Your task to perform on an android device: Clear the cart on bestbuy. Add panasonic triple a to the cart on bestbuy Image 0: 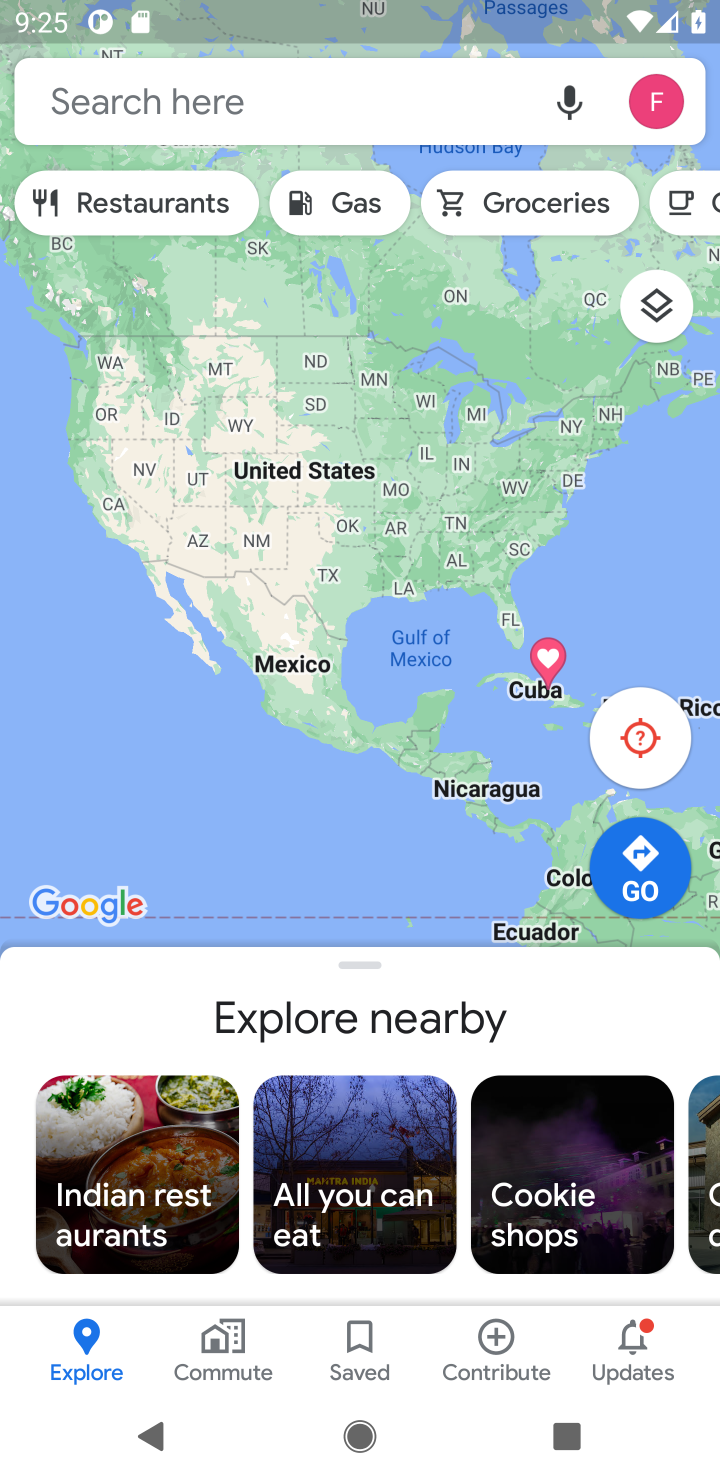
Step 0: press home button
Your task to perform on an android device: Clear the cart on bestbuy. Add panasonic triple a to the cart on bestbuy Image 1: 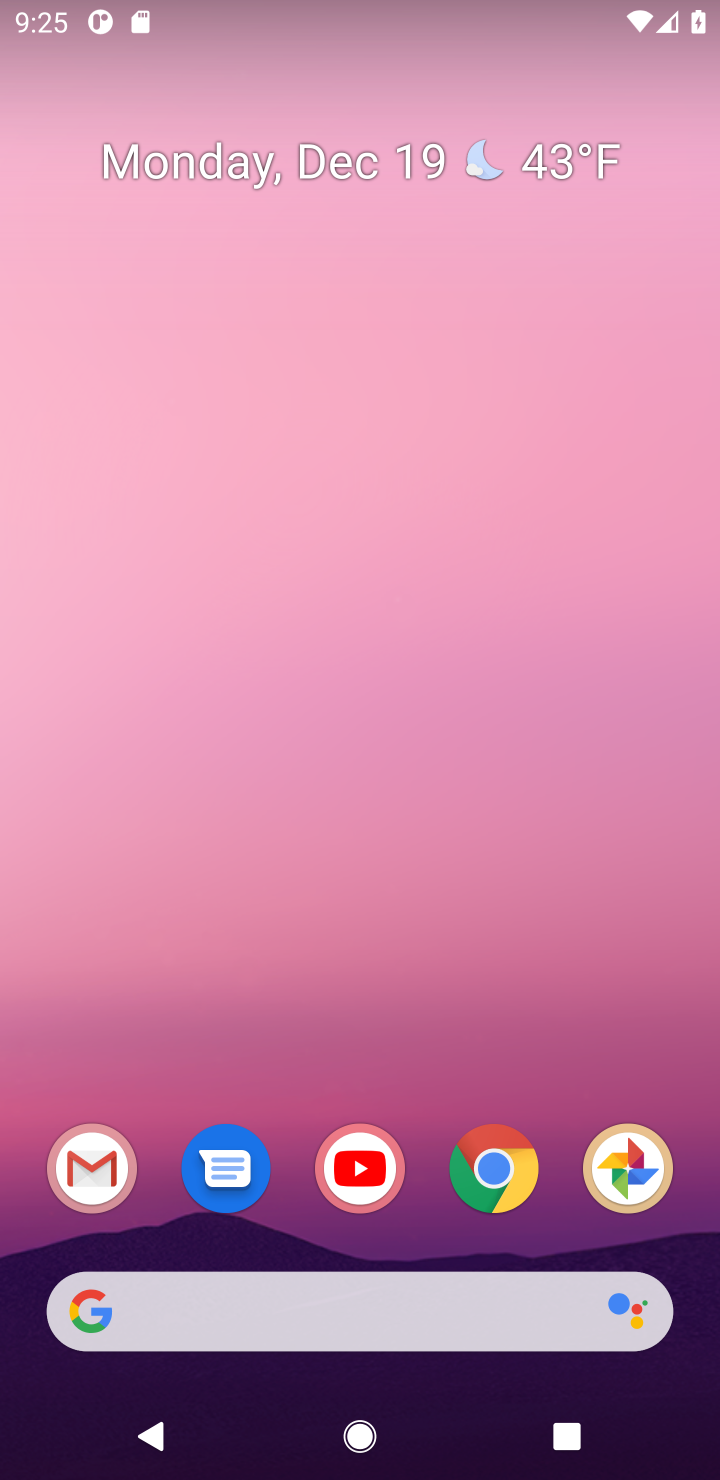
Step 1: click (497, 1167)
Your task to perform on an android device: Clear the cart on bestbuy. Add panasonic triple a to the cart on bestbuy Image 2: 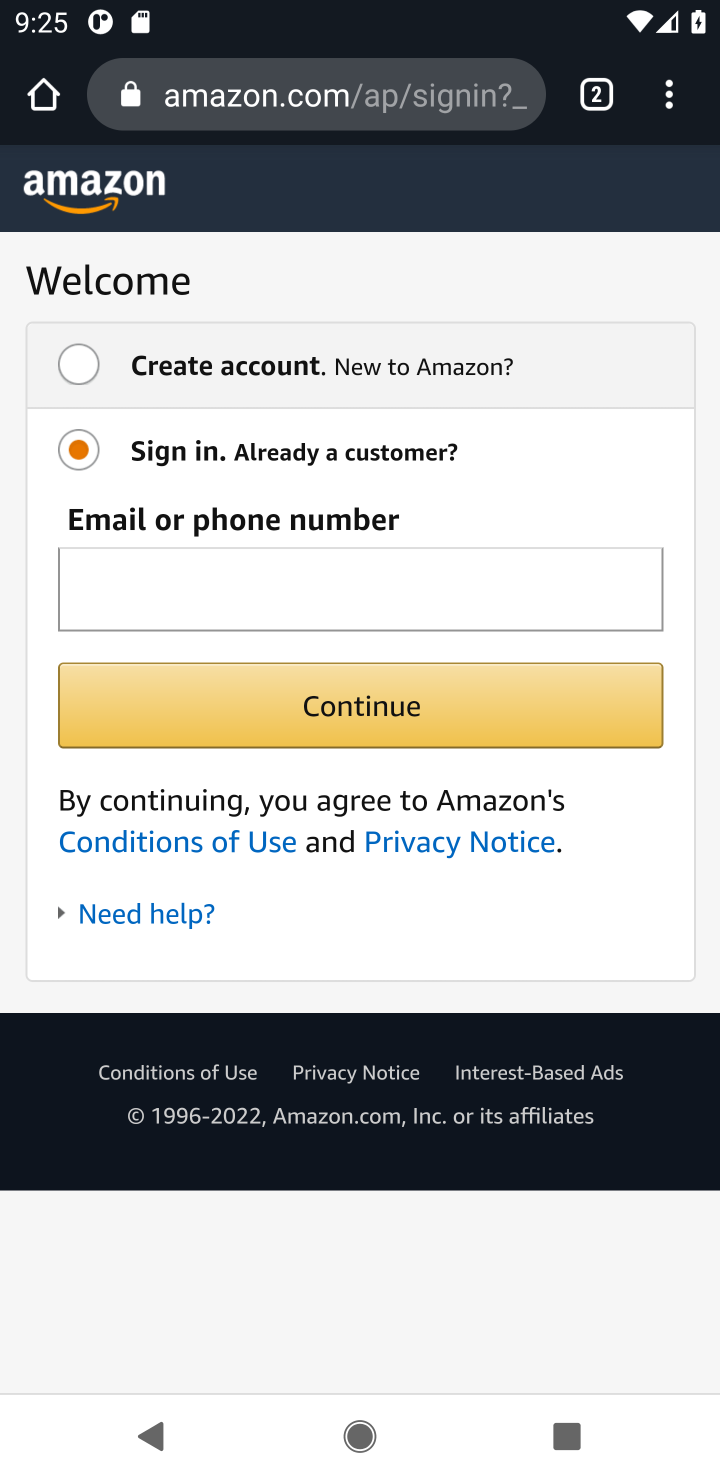
Step 2: click (283, 107)
Your task to perform on an android device: Clear the cart on bestbuy. Add panasonic triple a to the cart on bestbuy Image 3: 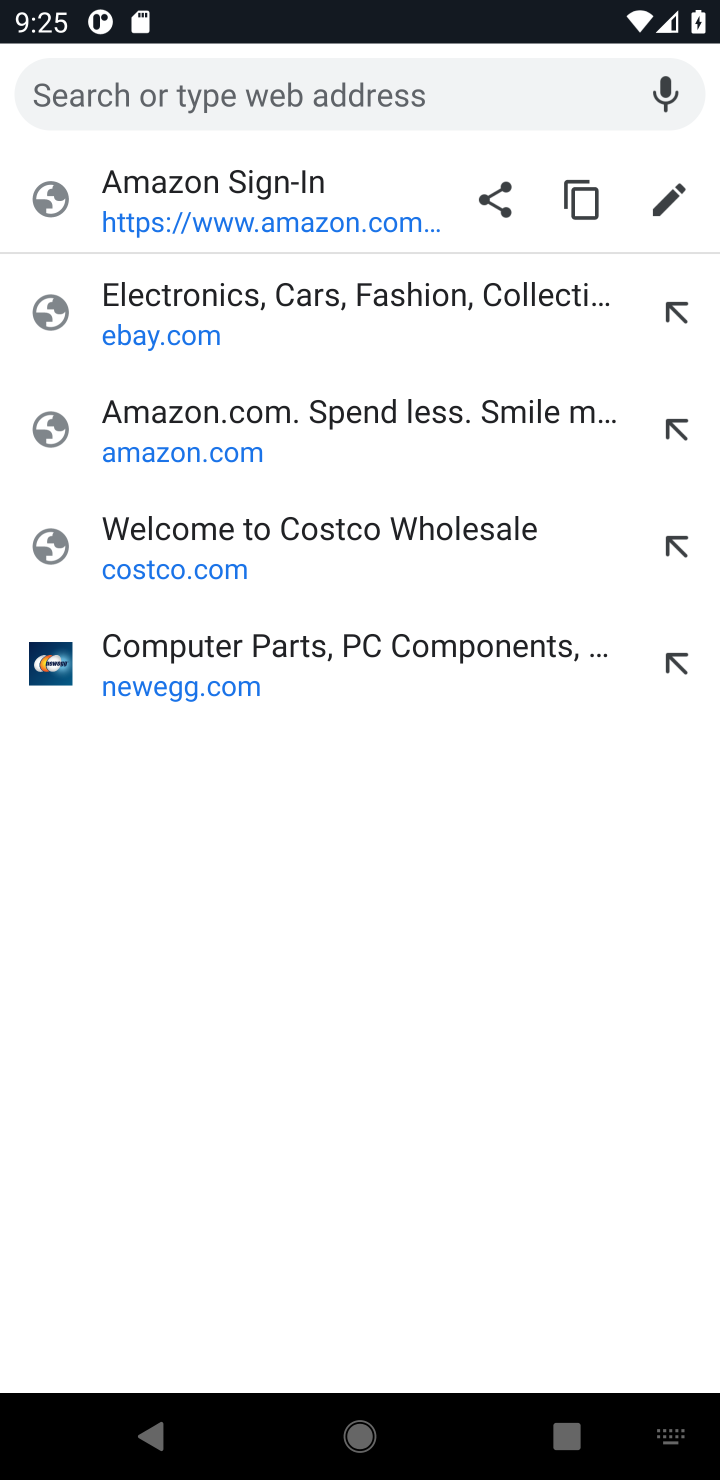
Step 3: type "bestbuy.com"
Your task to perform on an android device: Clear the cart on bestbuy. Add panasonic triple a to the cart on bestbuy Image 4: 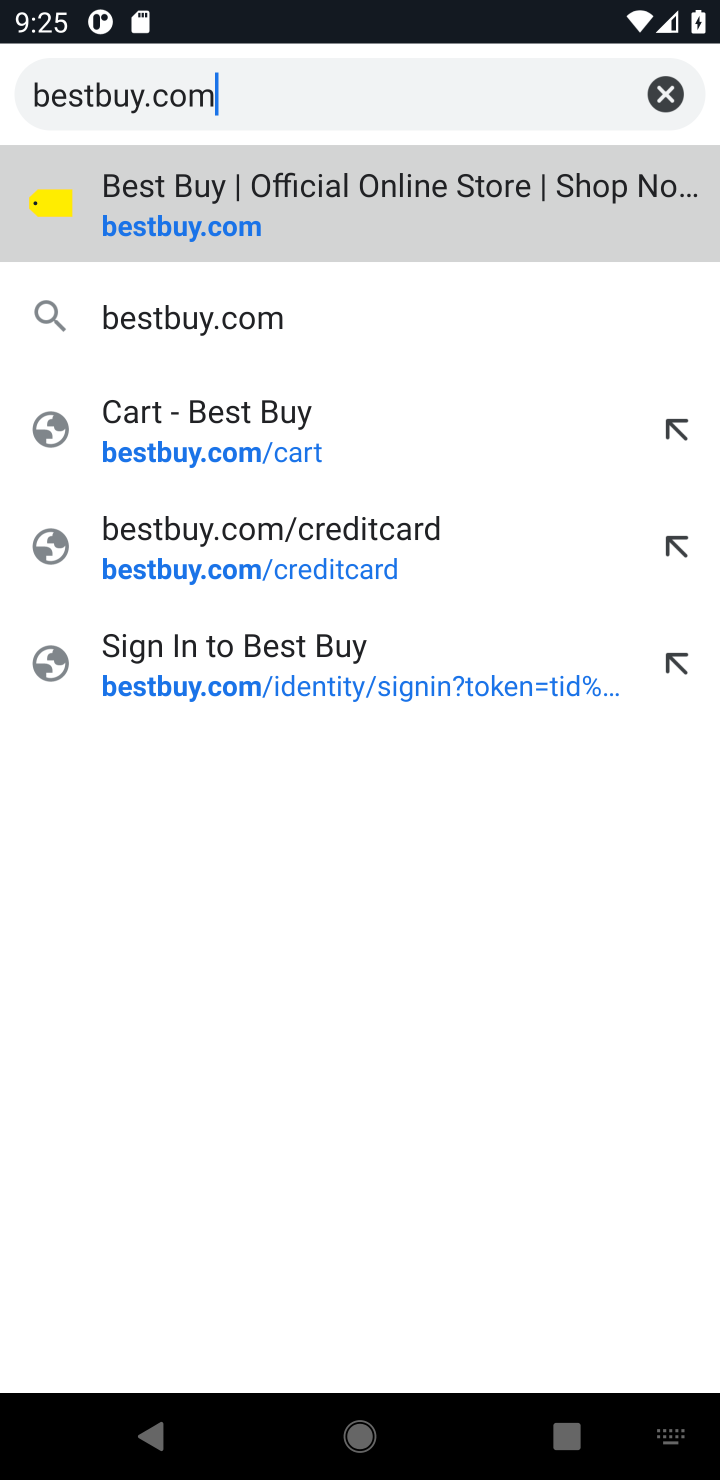
Step 4: click (166, 218)
Your task to perform on an android device: Clear the cart on bestbuy. Add panasonic triple a to the cart on bestbuy Image 5: 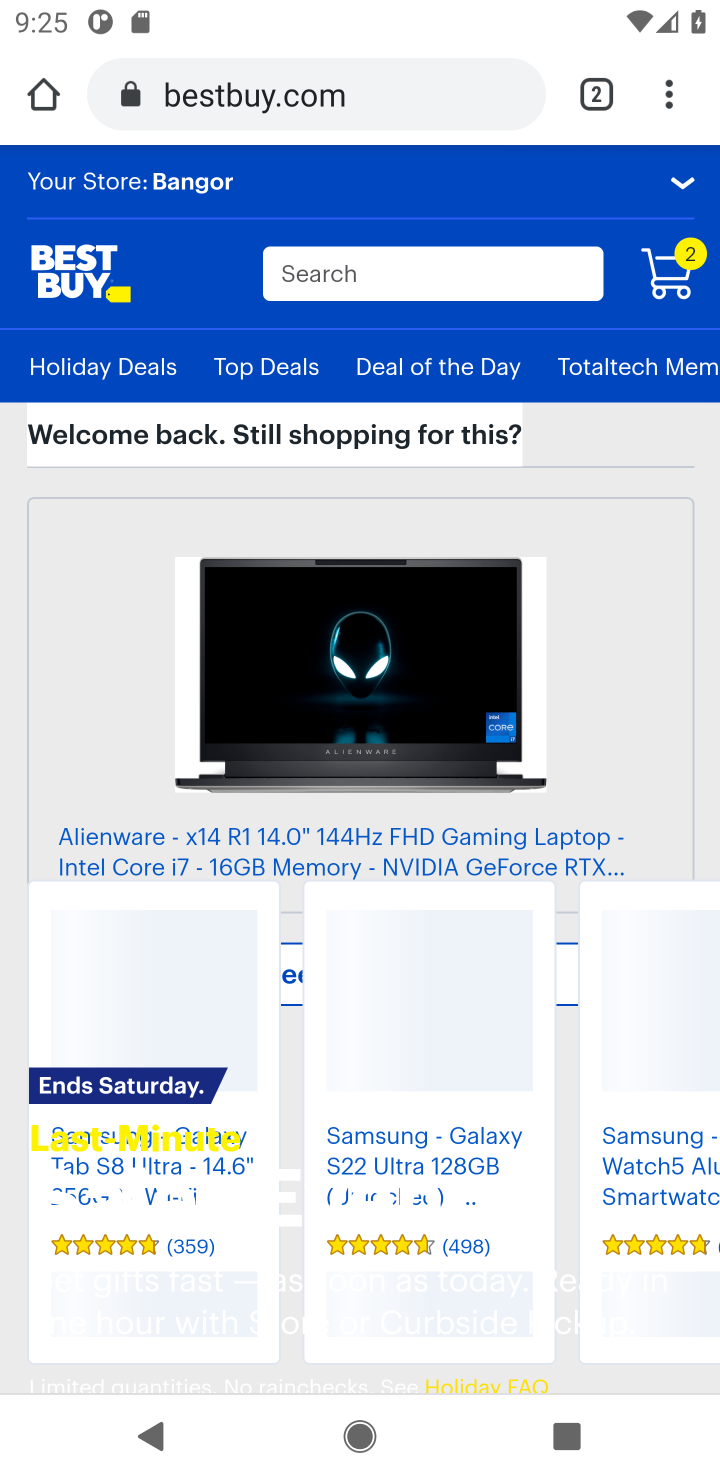
Step 5: click (660, 293)
Your task to perform on an android device: Clear the cart on bestbuy. Add panasonic triple a to the cart on bestbuy Image 6: 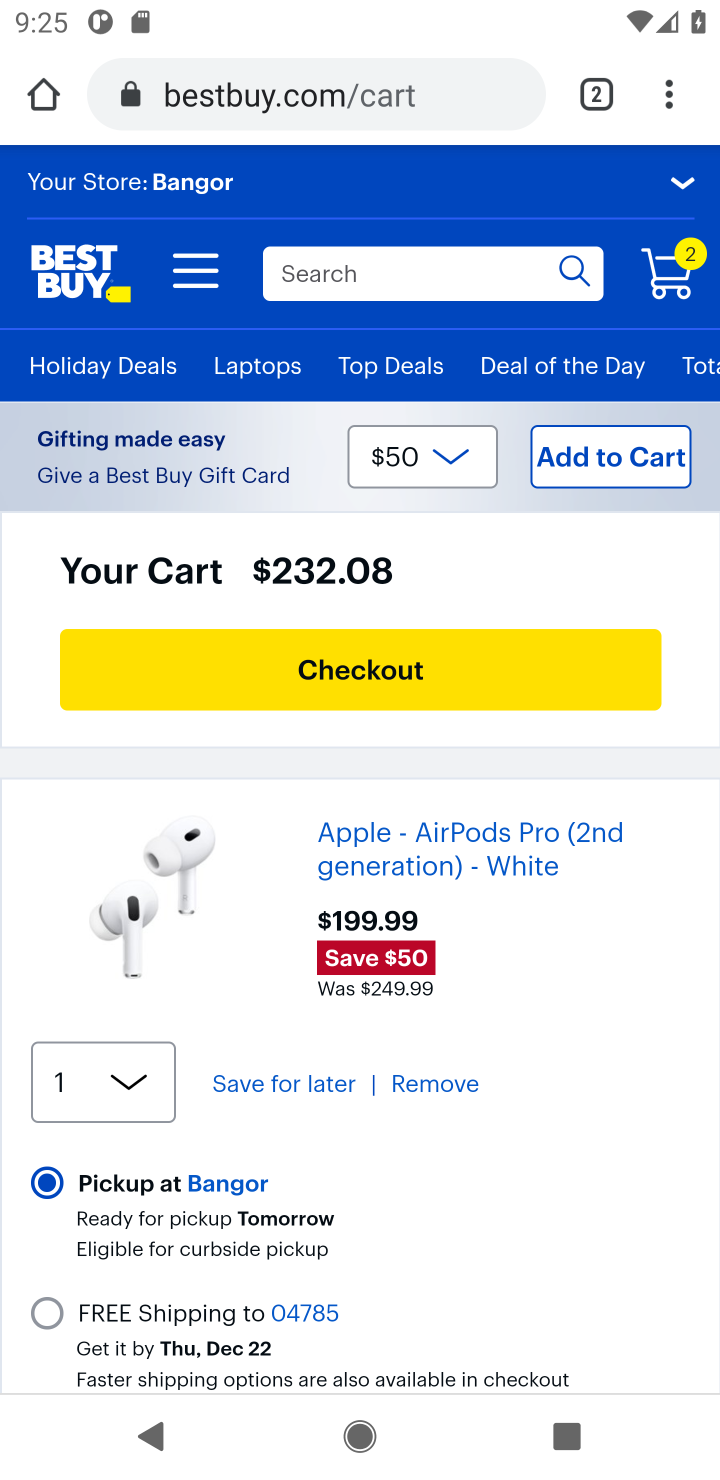
Step 6: click (428, 1080)
Your task to perform on an android device: Clear the cart on bestbuy. Add panasonic triple a to the cart on bestbuy Image 7: 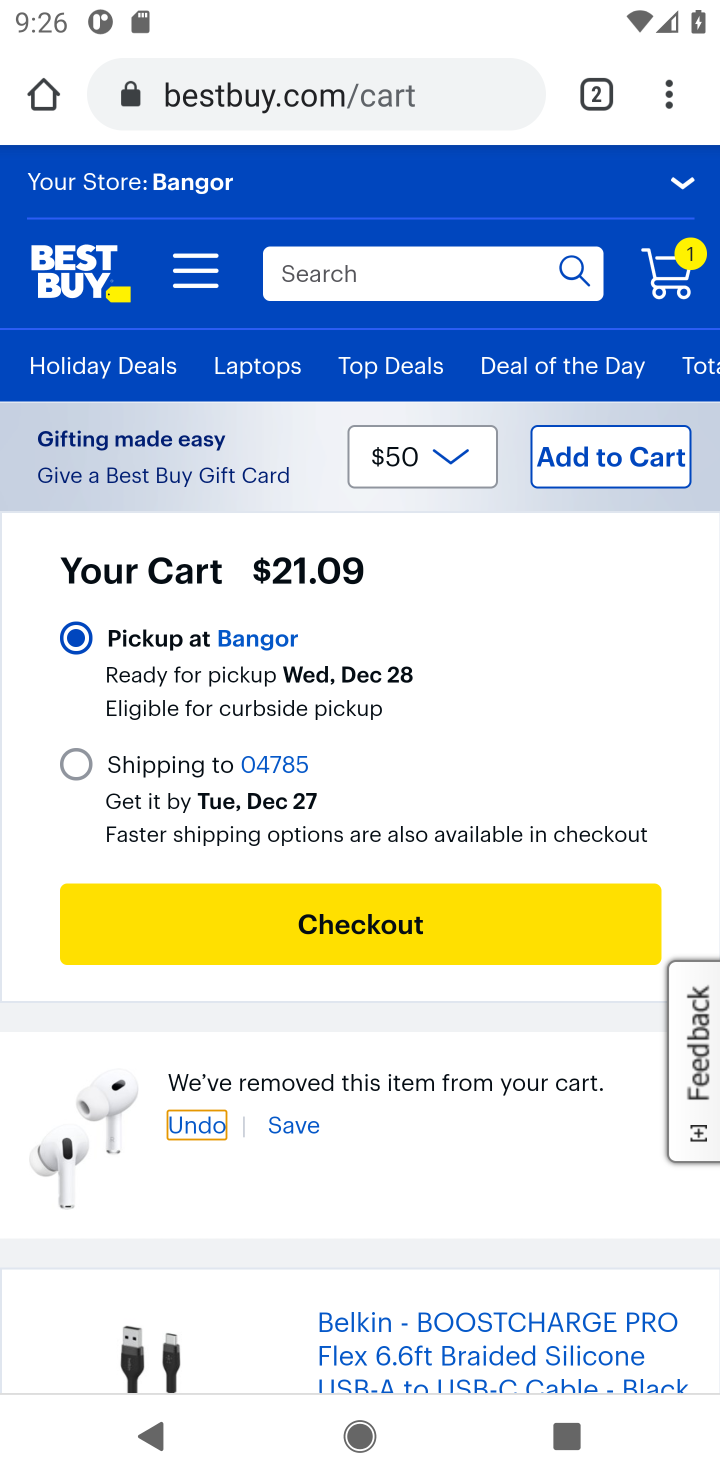
Step 7: drag from (267, 955) to (233, 625)
Your task to perform on an android device: Clear the cart on bestbuy. Add panasonic triple a to the cart on bestbuy Image 8: 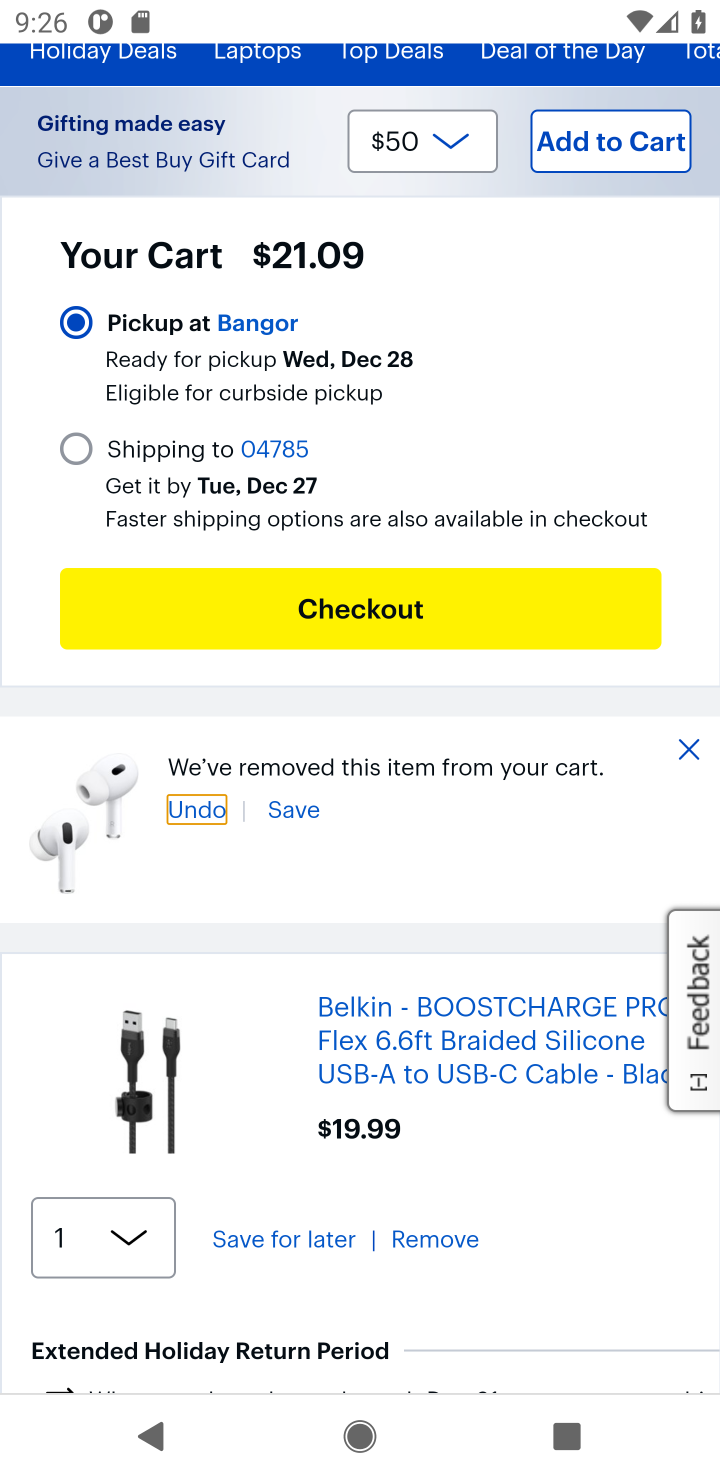
Step 8: click (448, 1237)
Your task to perform on an android device: Clear the cart on bestbuy. Add panasonic triple a to the cart on bestbuy Image 9: 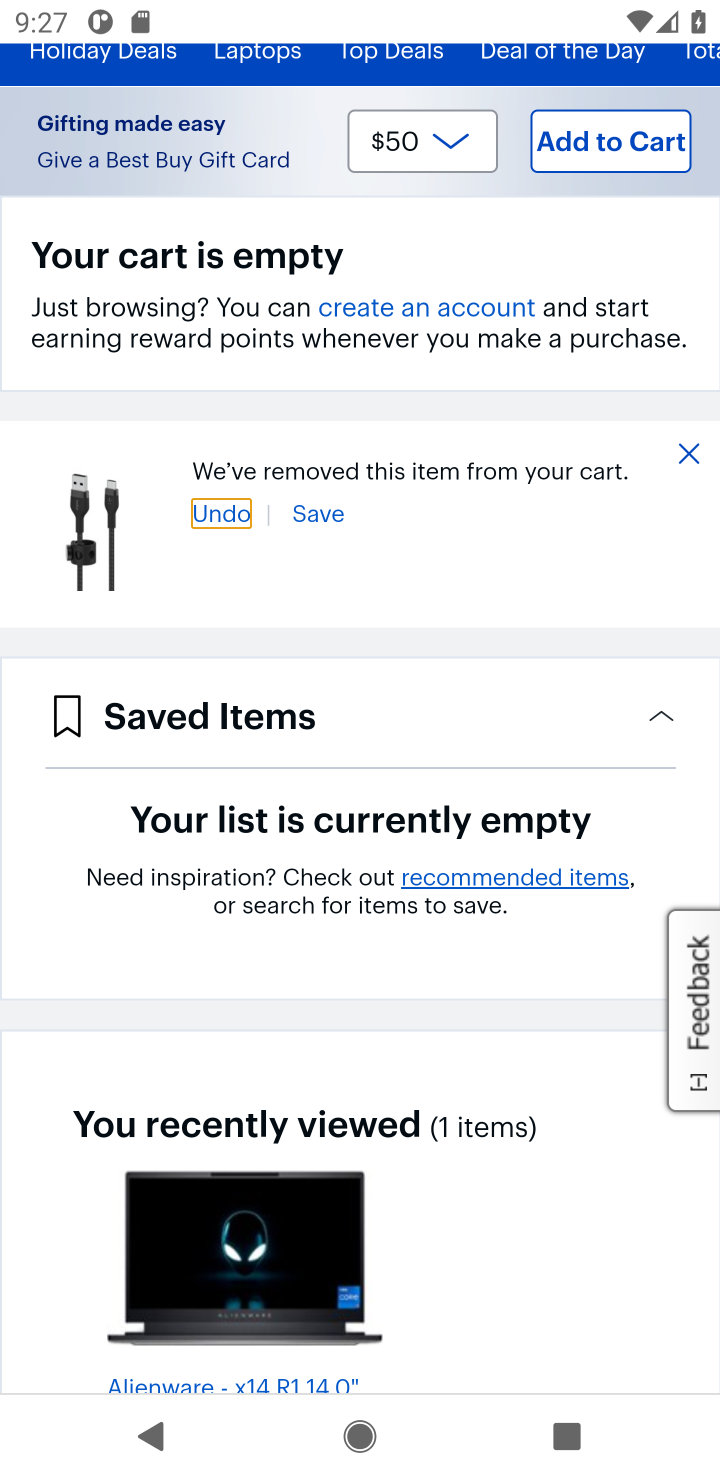
Step 9: drag from (323, 447) to (362, 737)
Your task to perform on an android device: Clear the cart on bestbuy. Add panasonic triple a to the cart on bestbuy Image 10: 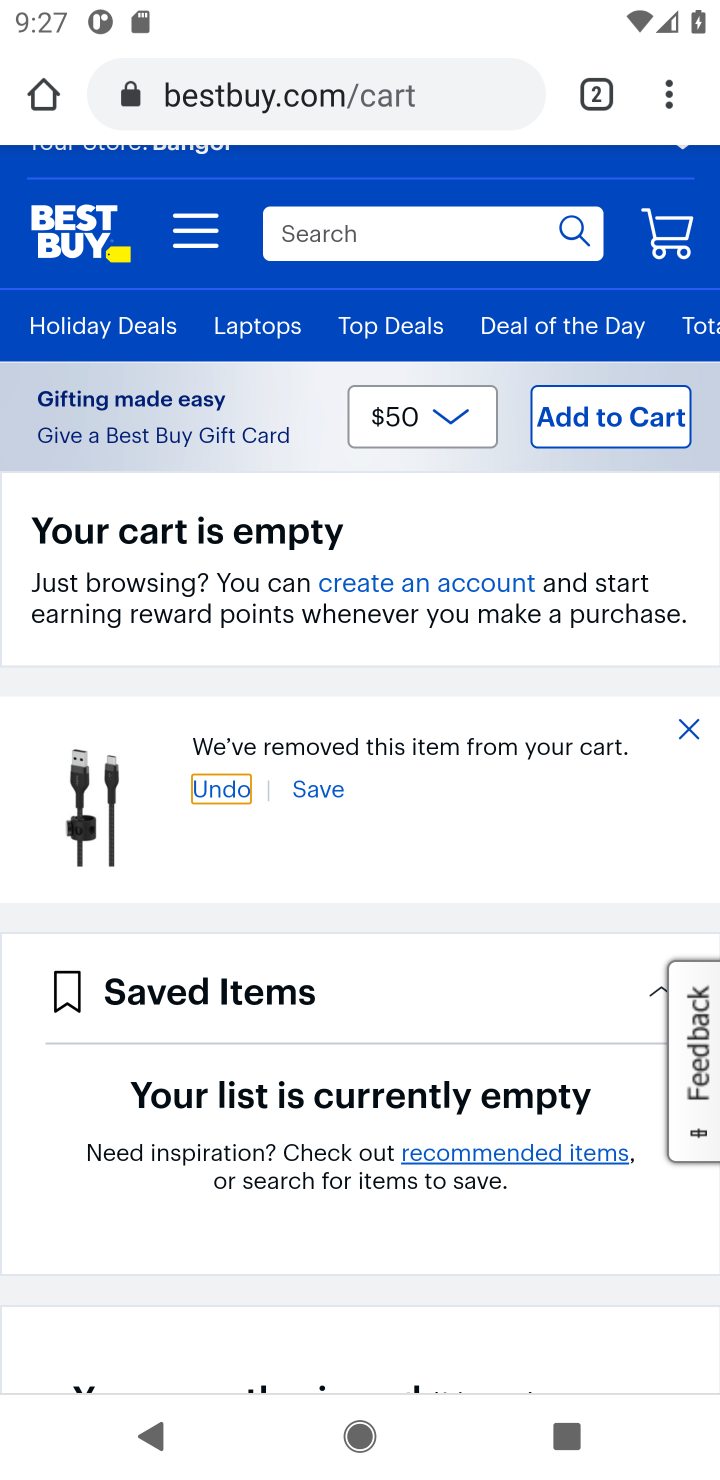
Step 10: click (335, 243)
Your task to perform on an android device: Clear the cart on bestbuy. Add panasonic triple a to the cart on bestbuy Image 11: 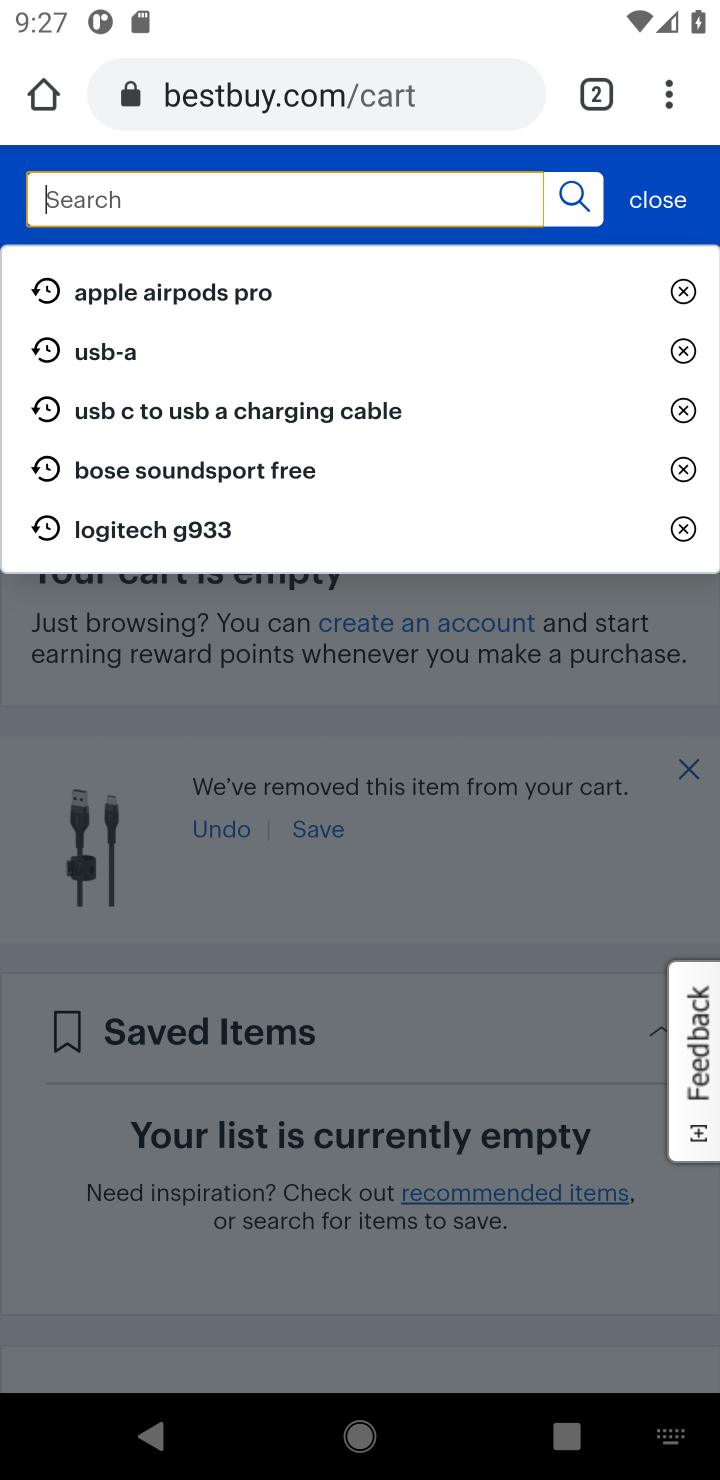
Step 11: type "panasonic triple a"
Your task to perform on an android device: Clear the cart on bestbuy. Add panasonic triple a to the cart on bestbuy Image 12: 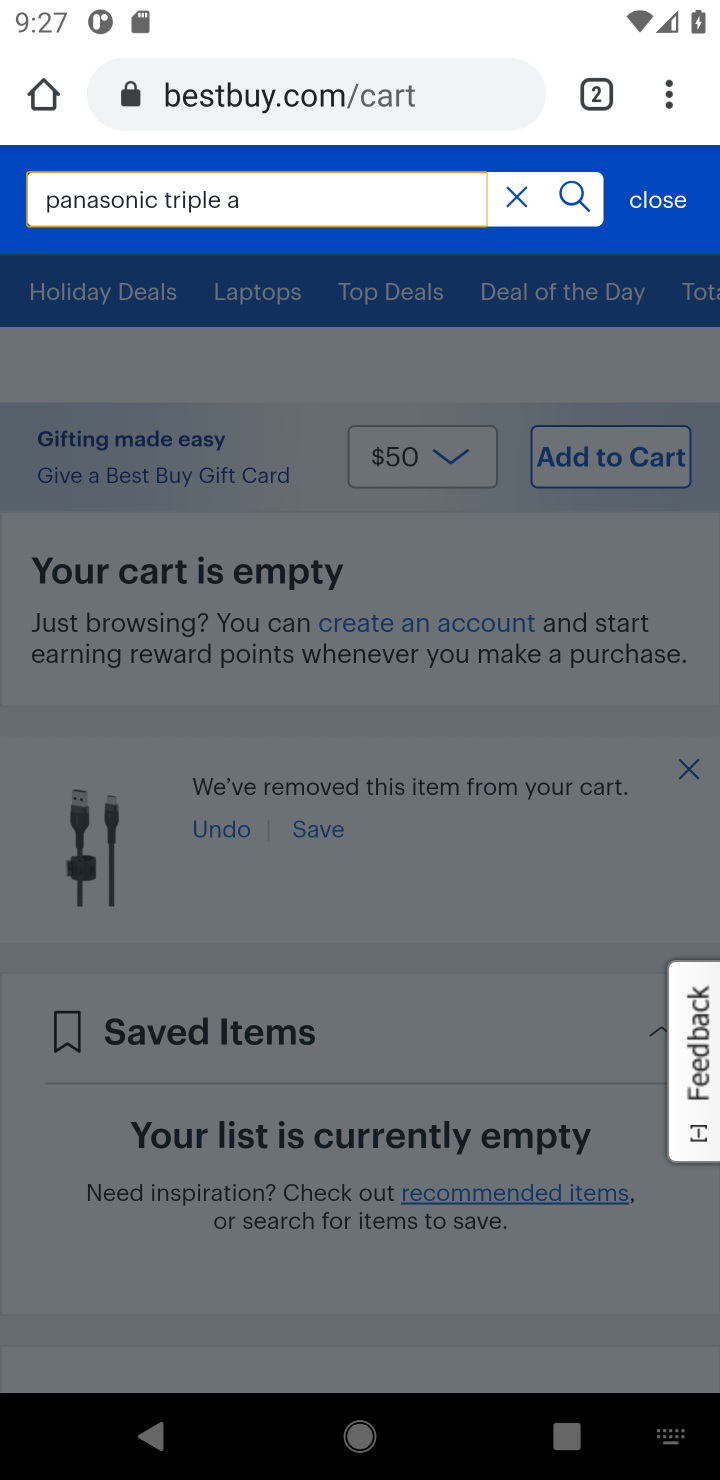
Step 12: click (570, 203)
Your task to perform on an android device: Clear the cart on bestbuy. Add panasonic triple a to the cart on bestbuy Image 13: 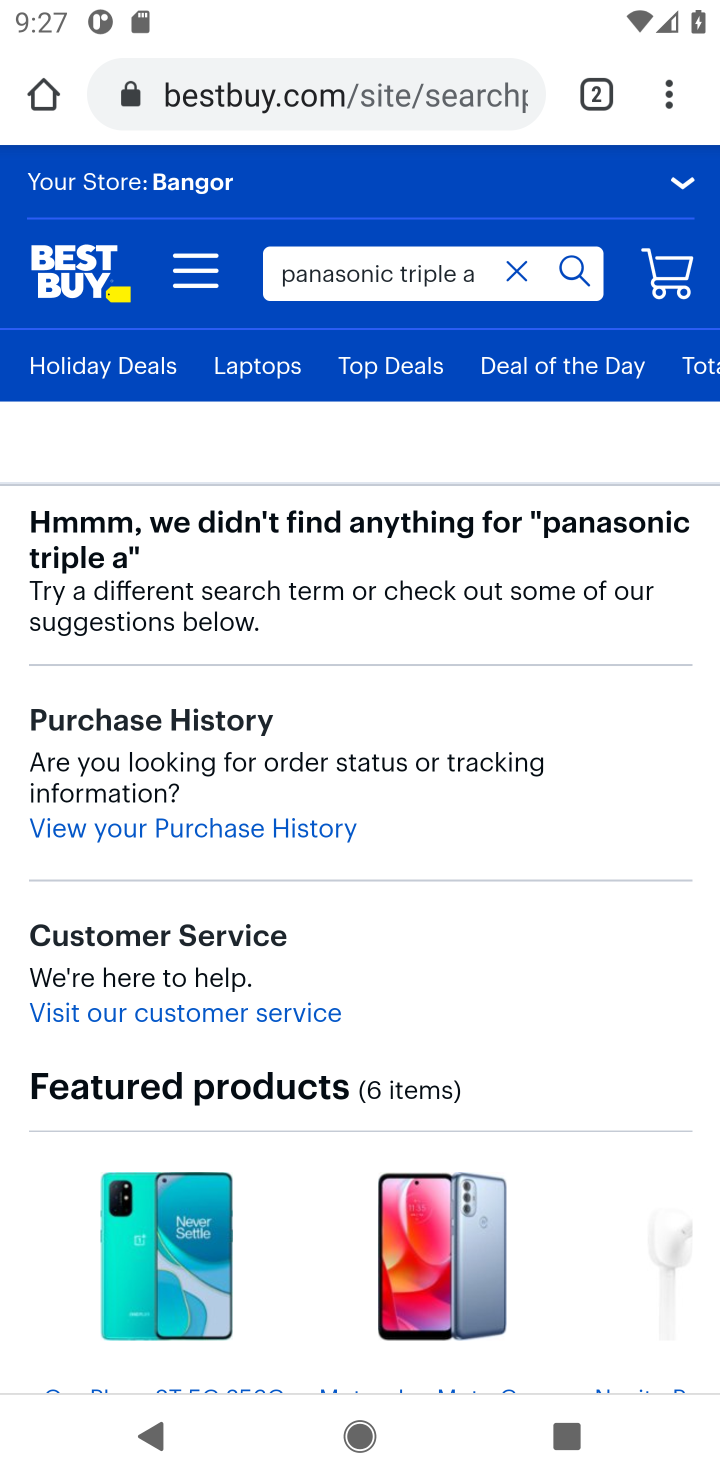
Step 13: task complete